Your task to perform on an android device: uninstall "Cash App" Image 0: 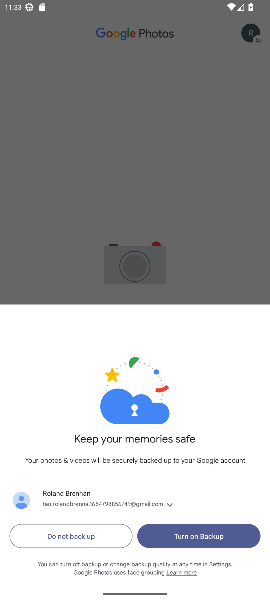
Step 0: press home button
Your task to perform on an android device: uninstall "Cash App" Image 1: 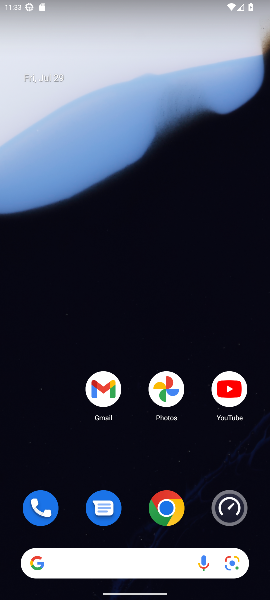
Step 1: drag from (182, 407) to (165, 46)
Your task to perform on an android device: uninstall "Cash App" Image 2: 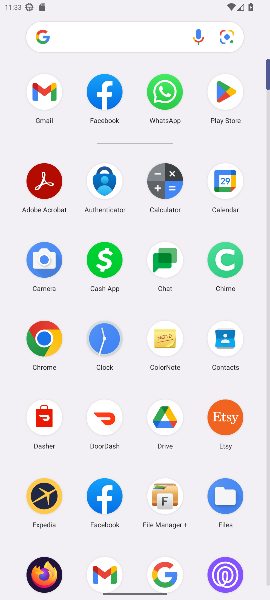
Step 2: click (225, 81)
Your task to perform on an android device: uninstall "Cash App" Image 3: 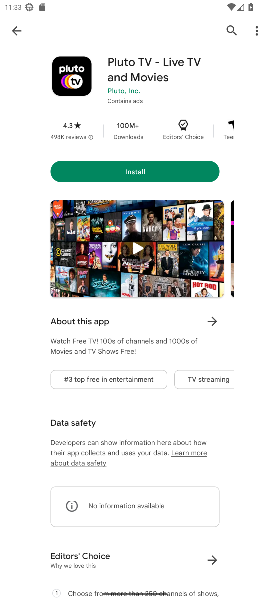
Step 3: click (234, 28)
Your task to perform on an android device: uninstall "Cash App" Image 4: 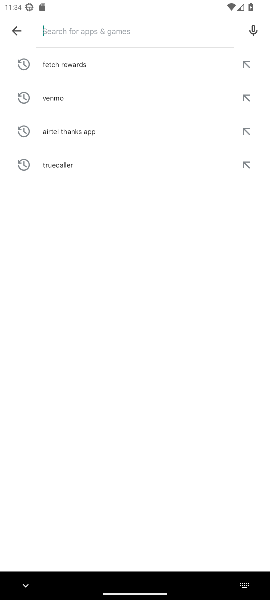
Step 4: type "cashapp"
Your task to perform on an android device: uninstall "Cash App" Image 5: 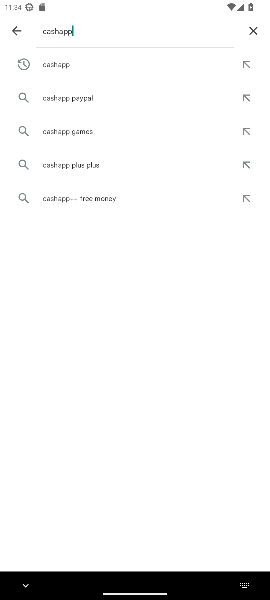
Step 5: click (89, 55)
Your task to perform on an android device: uninstall "Cash App" Image 6: 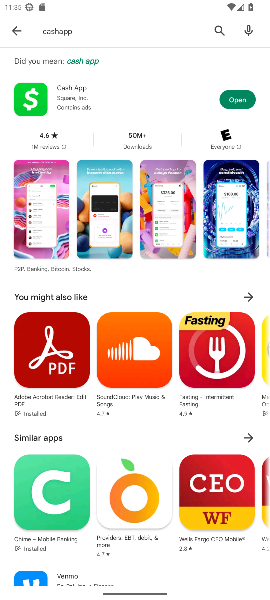
Step 6: task complete